Your task to perform on an android device: Go to accessibility settings Image 0: 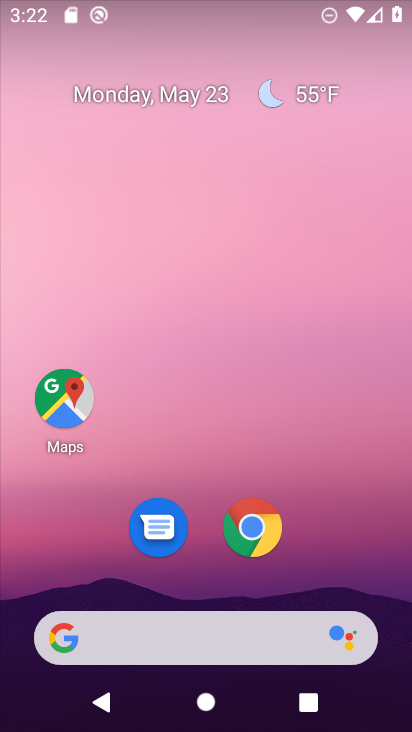
Step 0: press home button
Your task to perform on an android device: Go to accessibility settings Image 1: 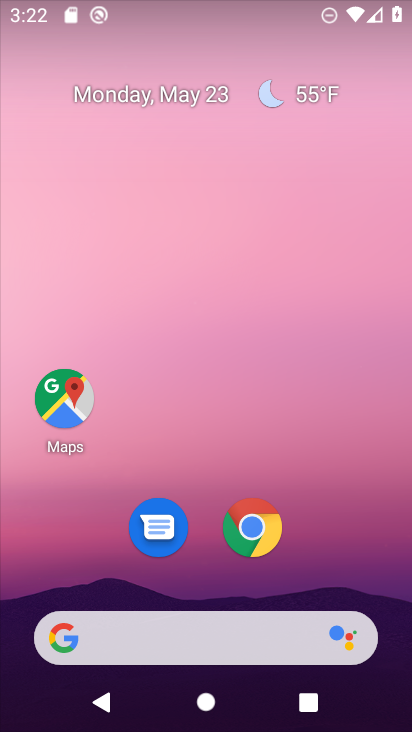
Step 1: drag from (207, 524) to (251, 70)
Your task to perform on an android device: Go to accessibility settings Image 2: 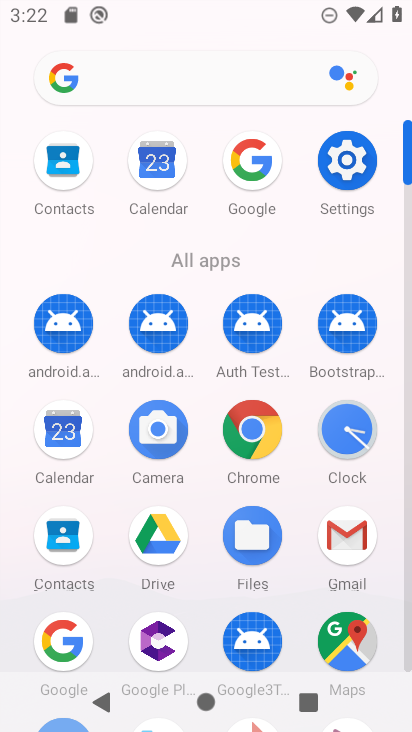
Step 2: drag from (206, 602) to (223, 98)
Your task to perform on an android device: Go to accessibility settings Image 3: 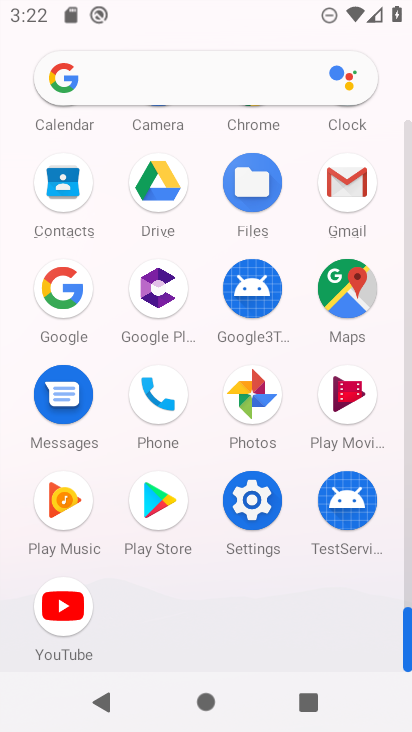
Step 3: click (249, 493)
Your task to perform on an android device: Go to accessibility settings Image 4: 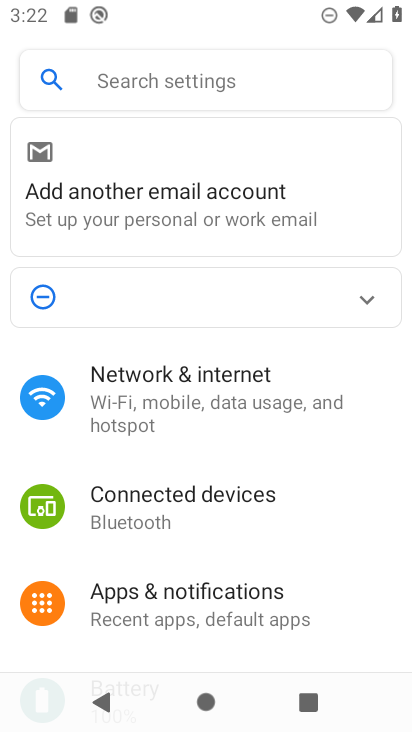
Step 4: drag from (205, 599) to (230, 0)
Your task to perform on an android device: Go to accessibility settings Image 5: 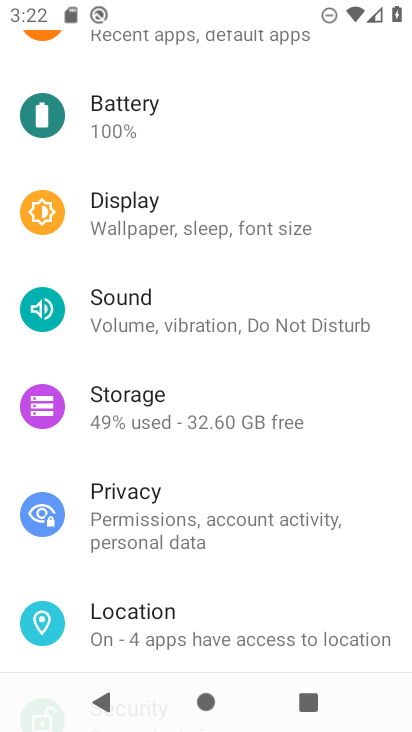
Step 5: drag from (201, 597) to (227, 34)
Your task to perform on an android device: Go to accessibility settings Image 6: 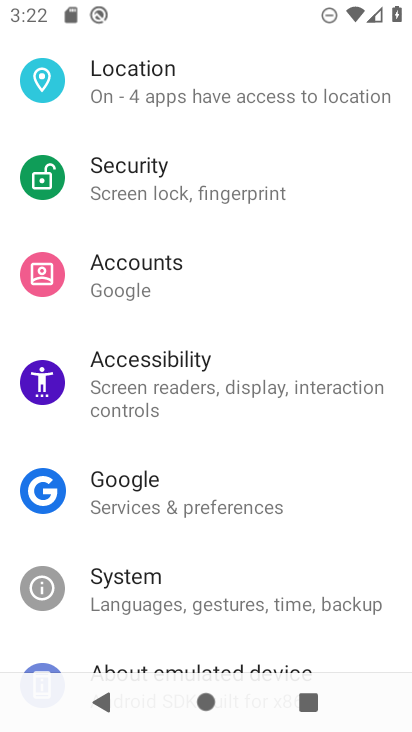
Step 6: click (215, 361)
Your task to perform on an android device: Go to accessibility settings Image 7: 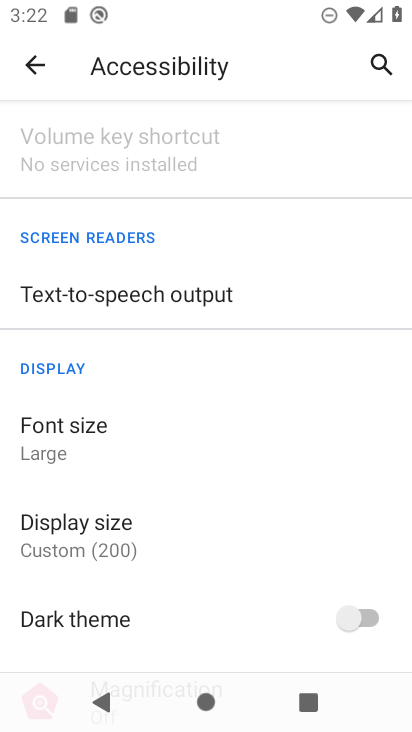
Step 7: task complete